Your task to perform on an android device: Do I have any events tomorrow? Image 0: 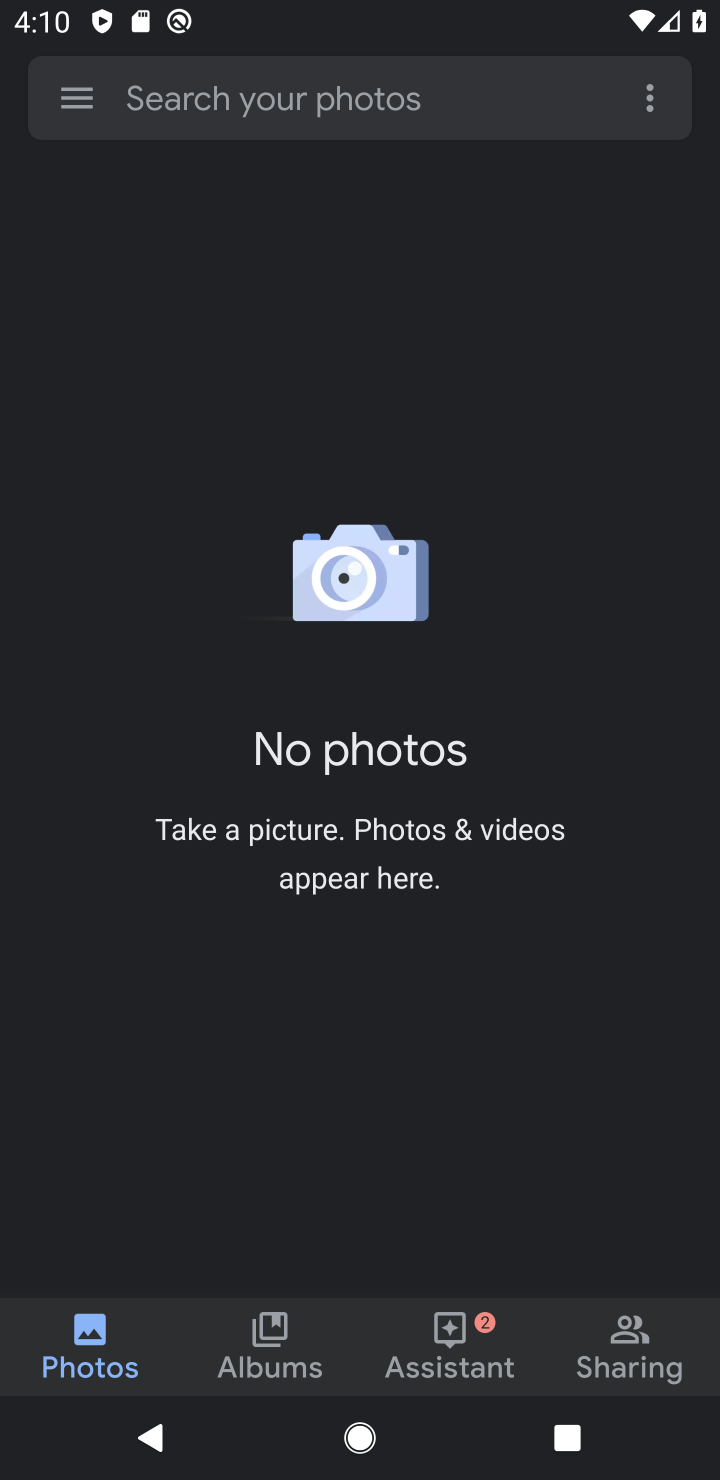
Step 0: press home button
Your task to perform on an android device: Do I have any events tomorrow? Image 1: 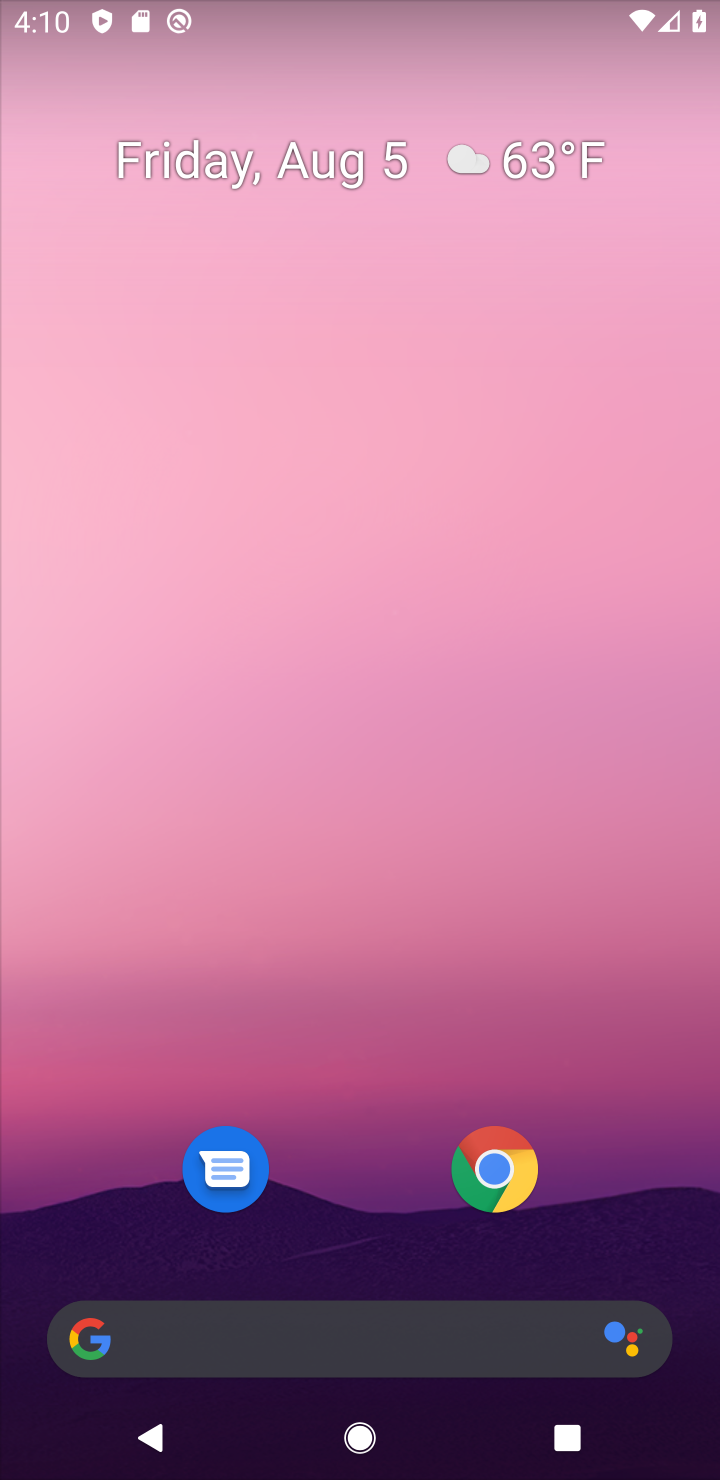
Step 1: drag from (308, 1284) to (303, 464)
Your task to perform on an android device: Do I have any events tomorrow? Image 2: 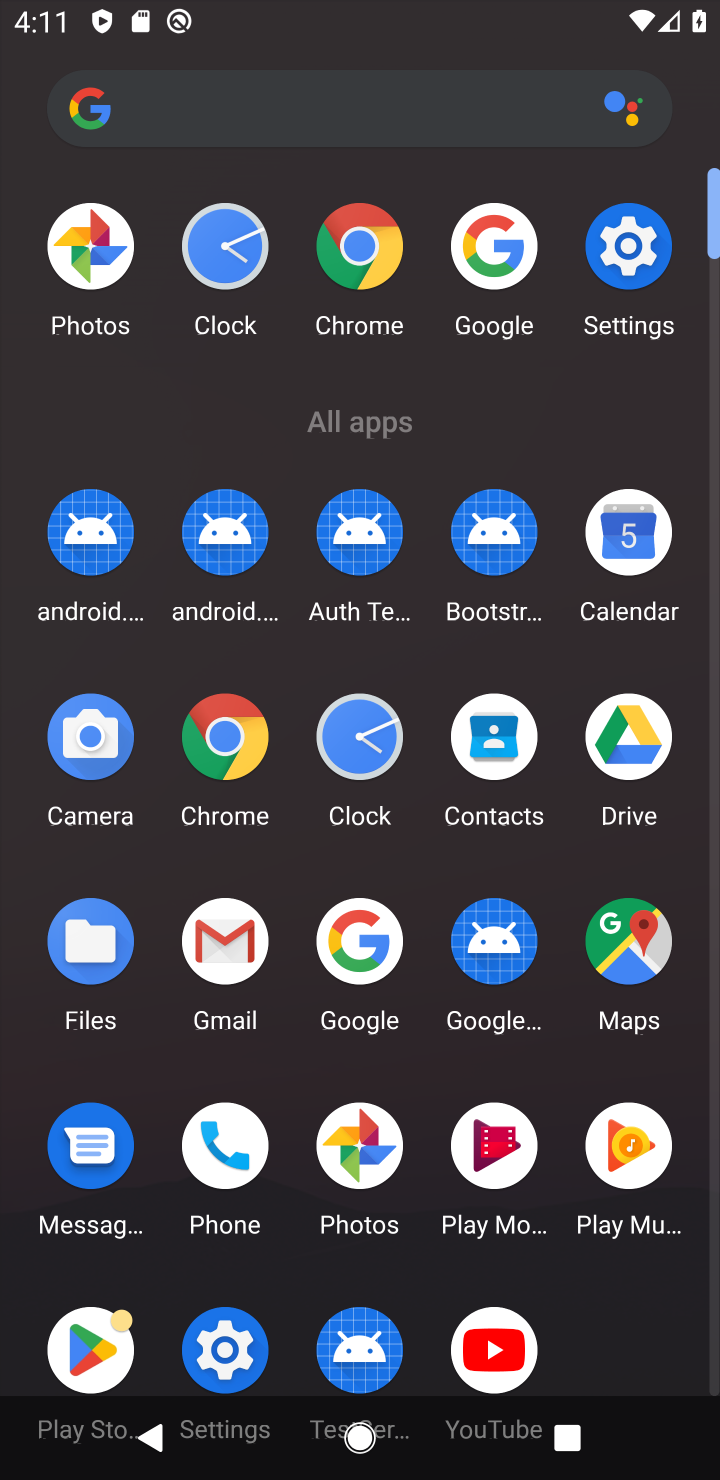
Step 2: click (604, 545)
Your task to perform on an android device: Do I have any events tomorrow? Image 3: 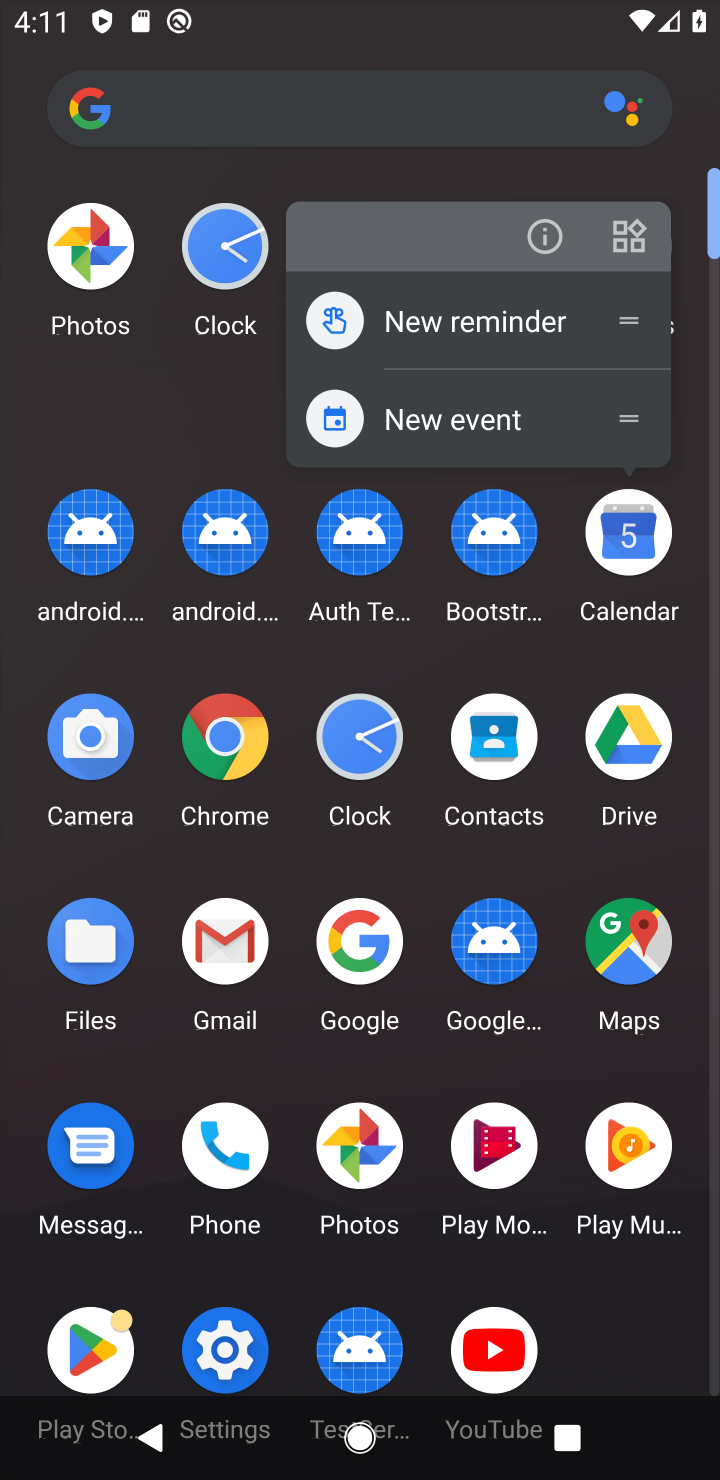
Step 3: click (604, 545)
Your task to perform on an android device: Do I have any events tomorrow? Image 4: 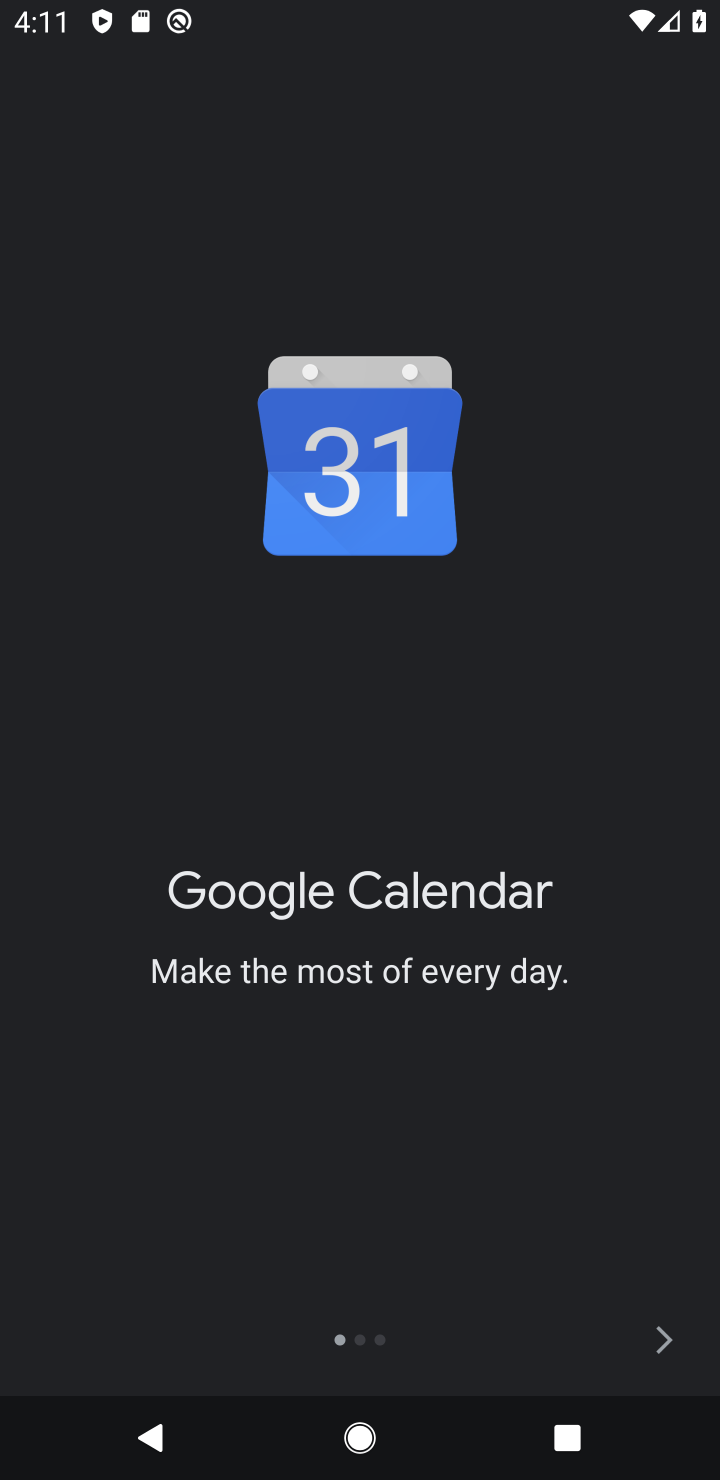
Step 4: click (716, 1350)
Your task to perform on an android device: Do I have any events tomorrow? Image 5: 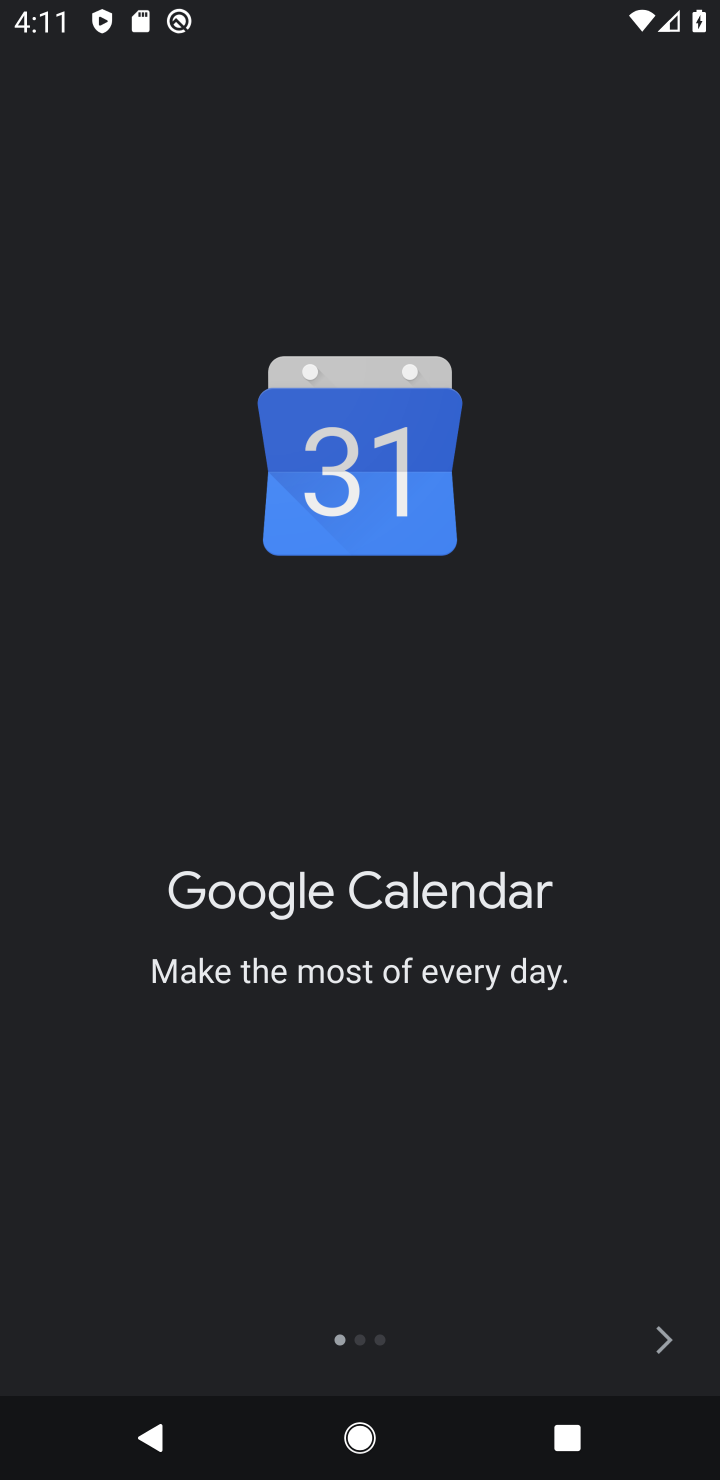
Step 5: click (676, 1348)
Your task to perform on an android device: Do I have any events tomorrow? Image 6: 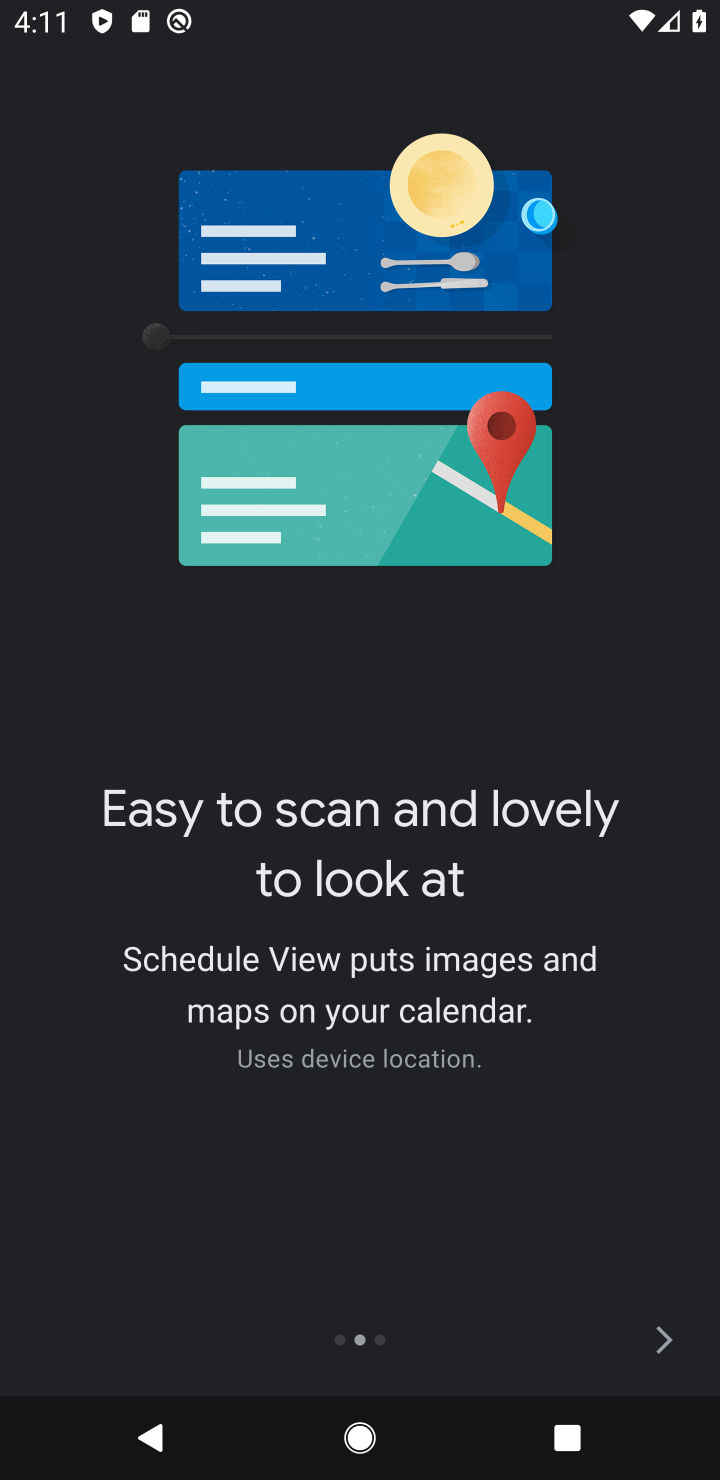
Step 6: click (676, 1348)
Your task to perform on an android device: Do I have any events tomorrow? Image 7: 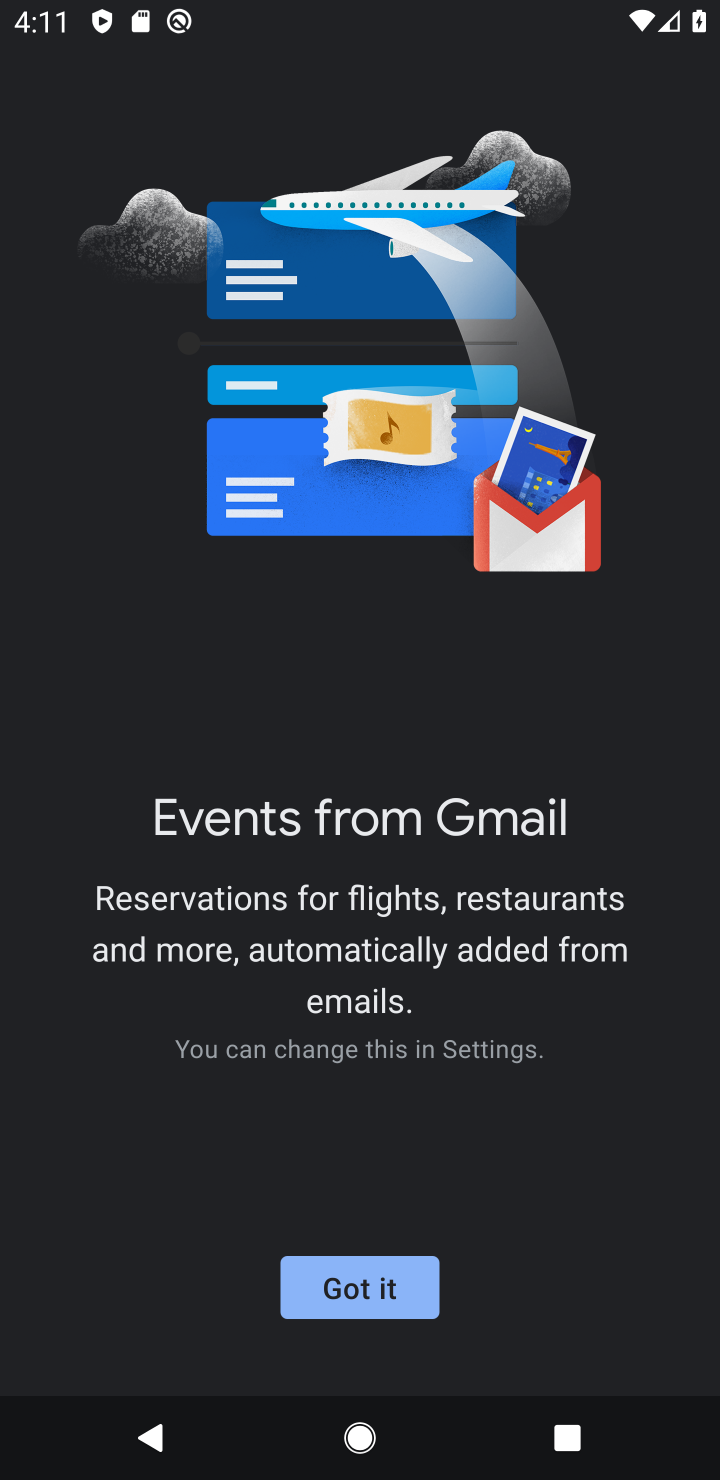
Step 7: click (357, 1285)
Your task to perform on an android device: Do I have any events tomorrow? Image 8: 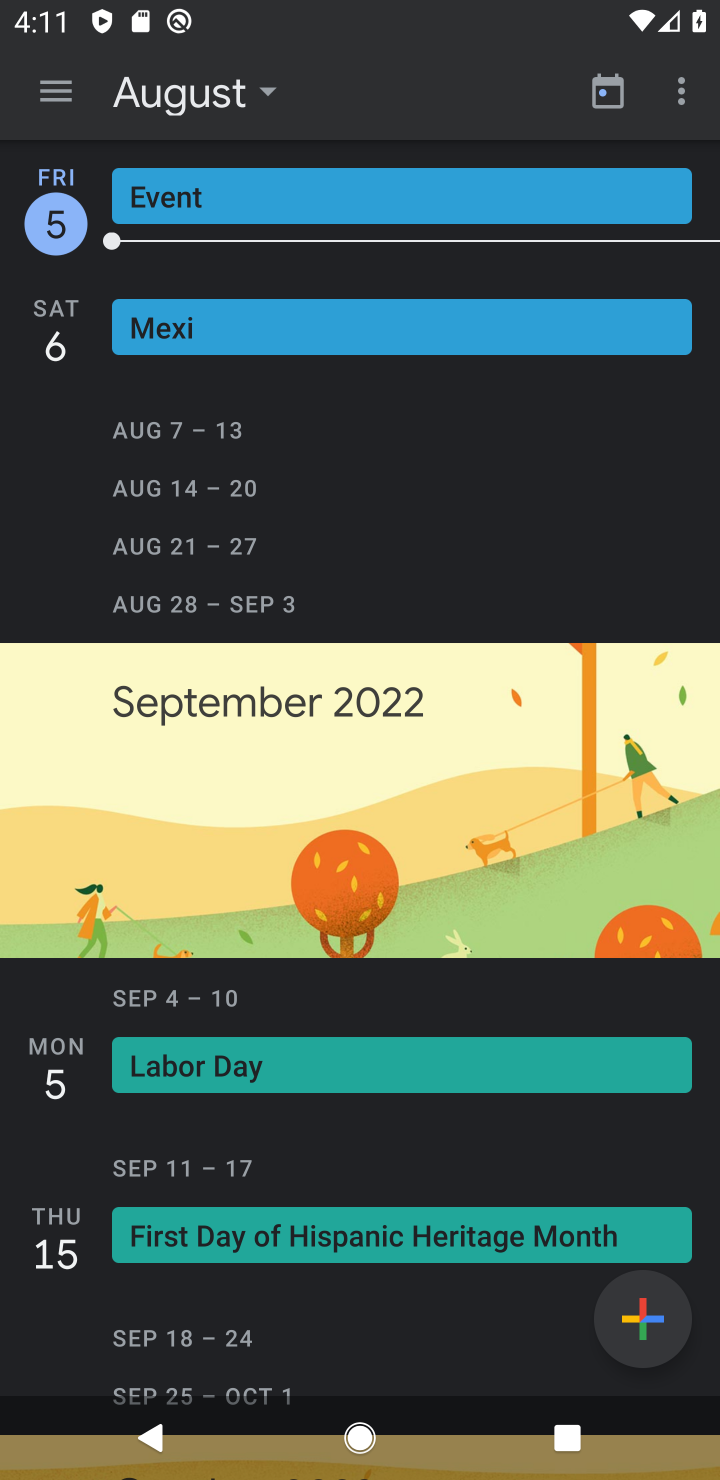
Step 8: click (175, 87)
Your task to perform on an android device: Do I have any events tomorrow? Image 9: 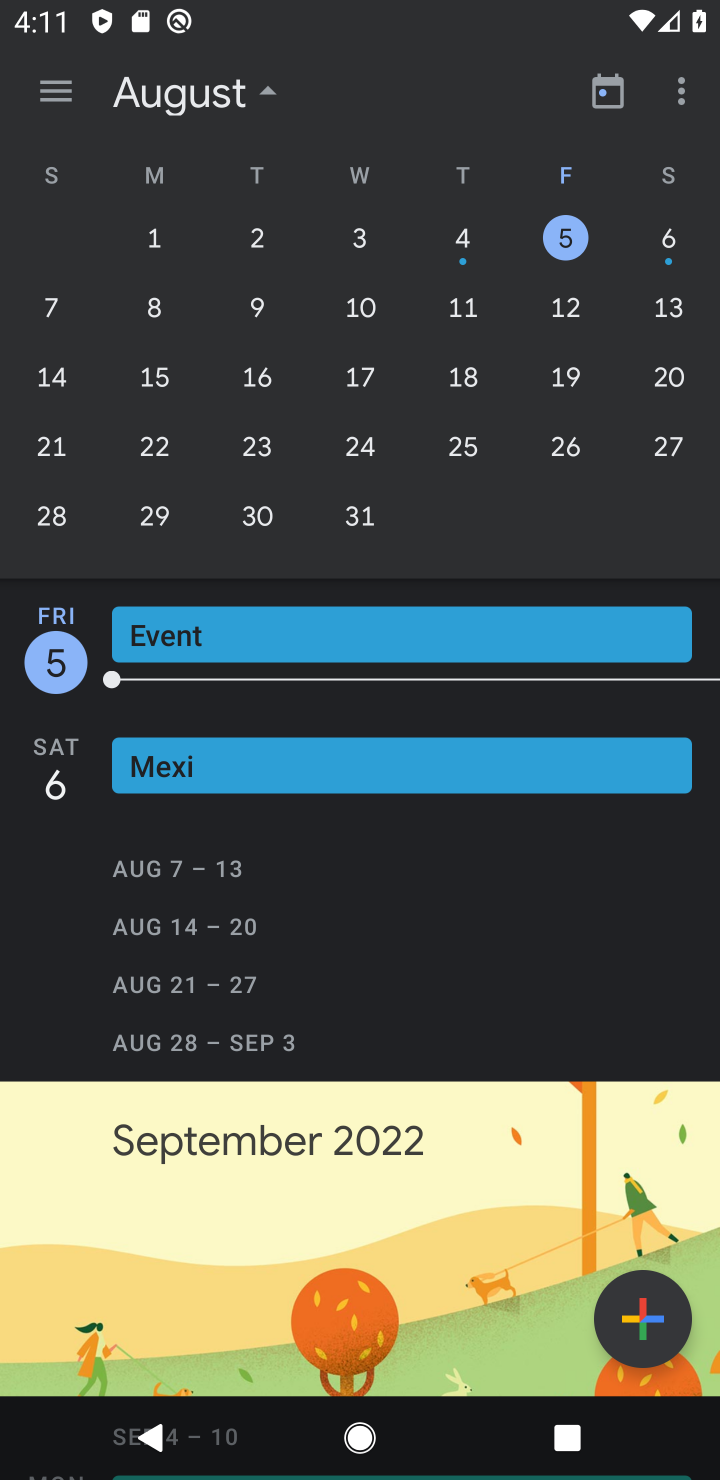
Step 9: click (644, 255)
Your task to perform on an android device: Do I have any events tomorrow? Image 10: 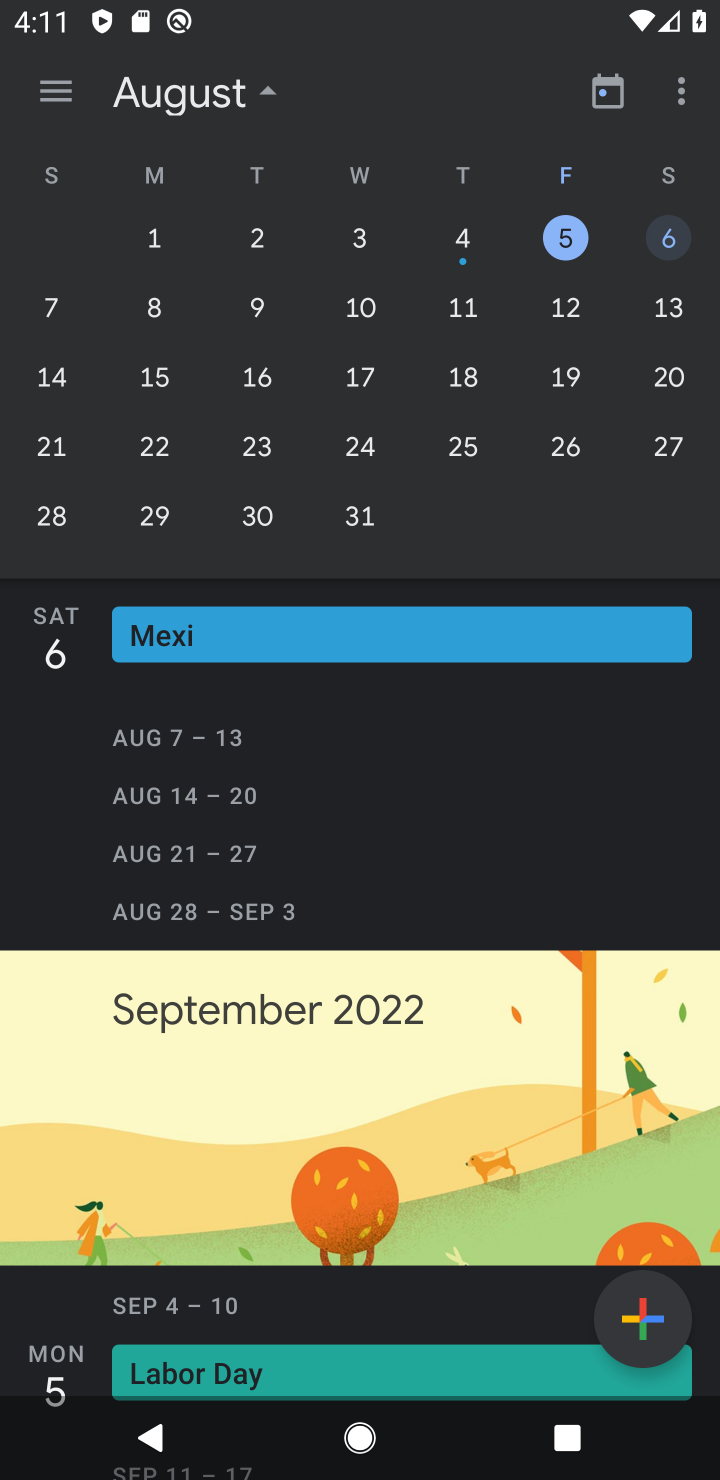
Step 10: task complete